Your task to perform on an android device: turn on sleep mode Image 0: 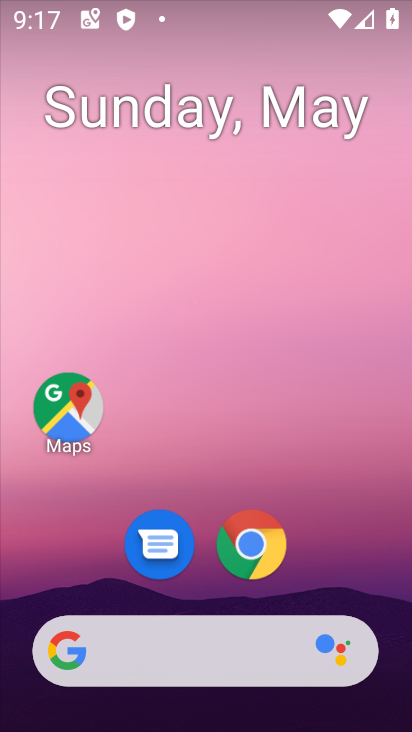
Step 0: drag from (334, 524) to (386, 56)
Your task to perform on an android device: turn on sleep mode Image 1: 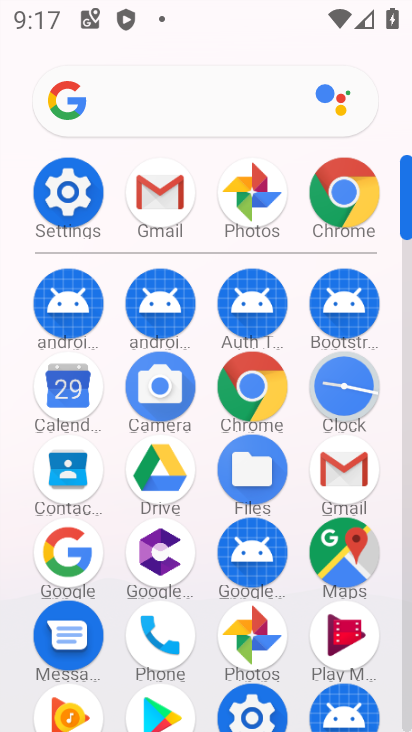
Step 1: click (59, 181)
Your task to perform on an android device: turn on sleep mode Image 2: 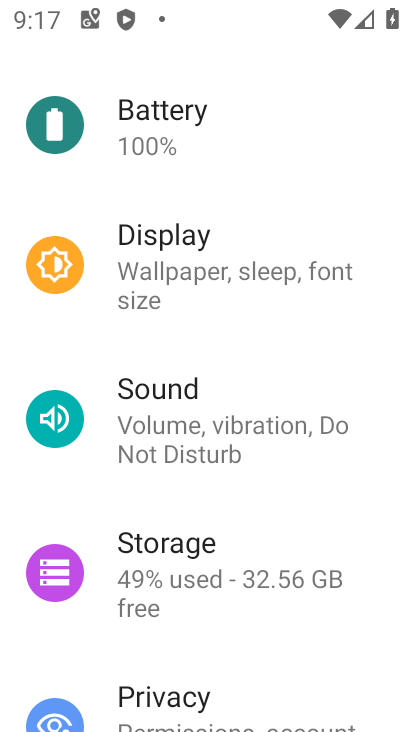
Step 2: click (172, 262)
Your task to perform on an android device: turn on sleep mode Image 3: 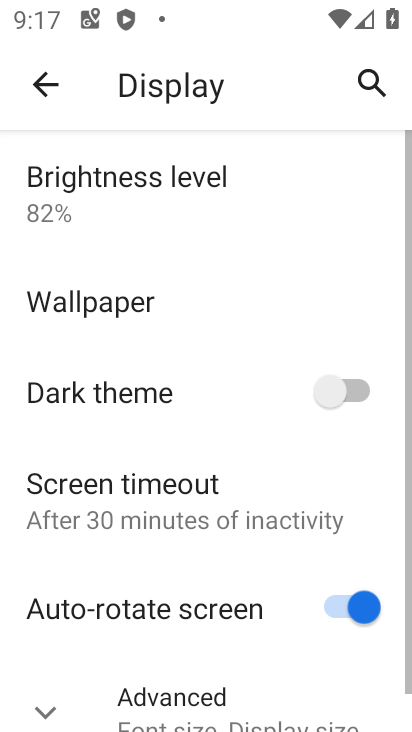
Step 3: click (116, 503)
Your task to perform on an android device: turn on sleep mode Image 4: 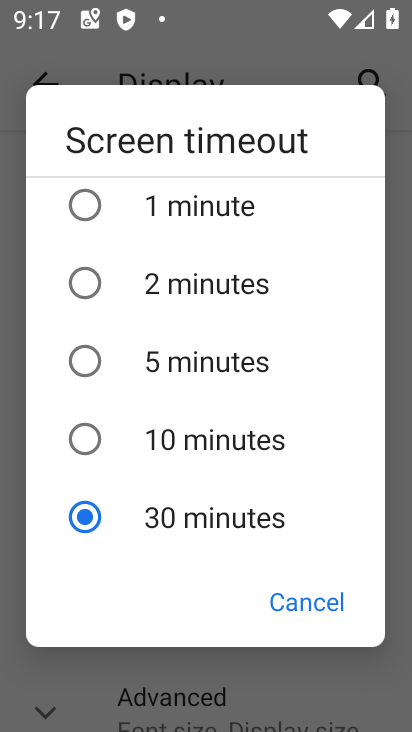
Step 4: task complete